Your task to perform on an android device: Set the phone to "Do not disturb". Image 0: 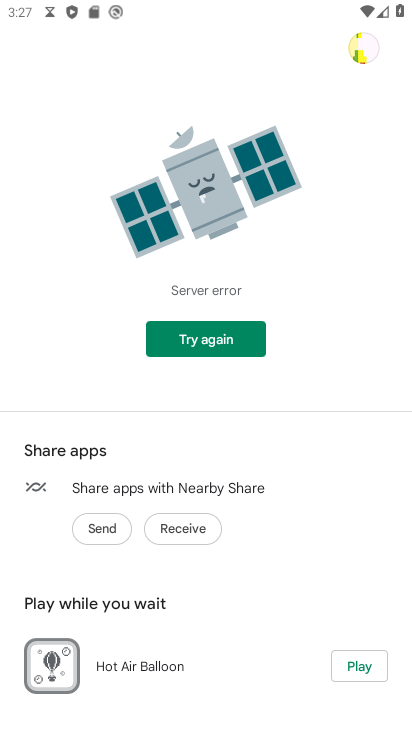
Step 0: press home button
Your task to perform on an android device: Set the phone to "Do not disturb". Image 1: 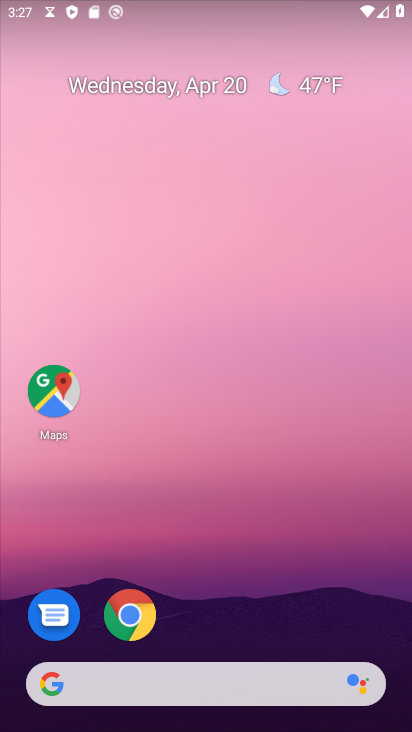
Step 1: drag from (223, 540) to (222, 162)
Your task to perform on an android device: Set the phone to "Do not disturb". Image 2: 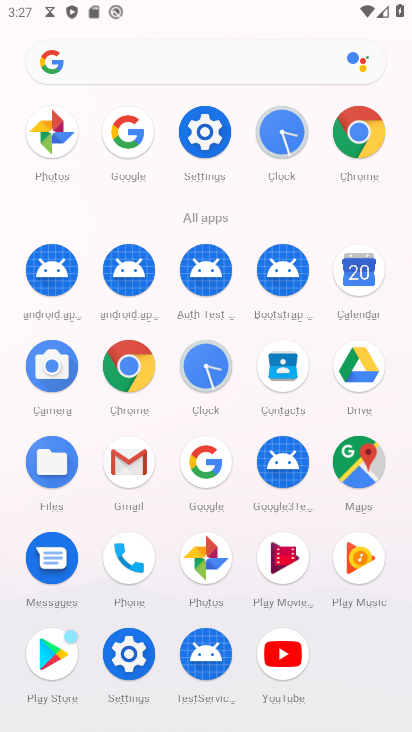
Step 2: click (212, 136)
Your task to perform on an android device: Set the phone to "Do not disturb". Image 3: 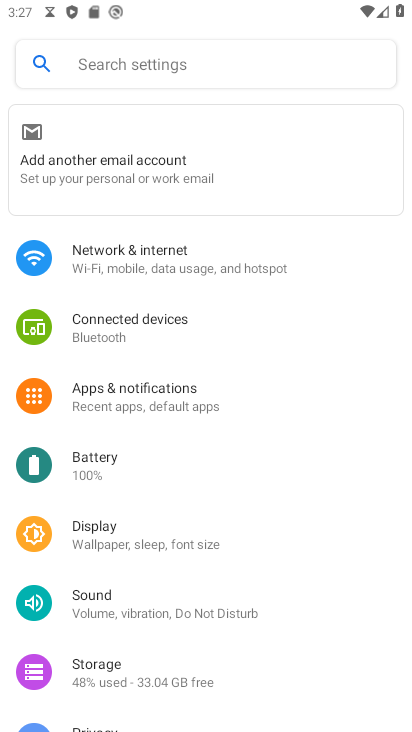
Step 3: click (168, 615)
Your task to perform on an android device: Set the phone to "Do not disturb". Image 4: 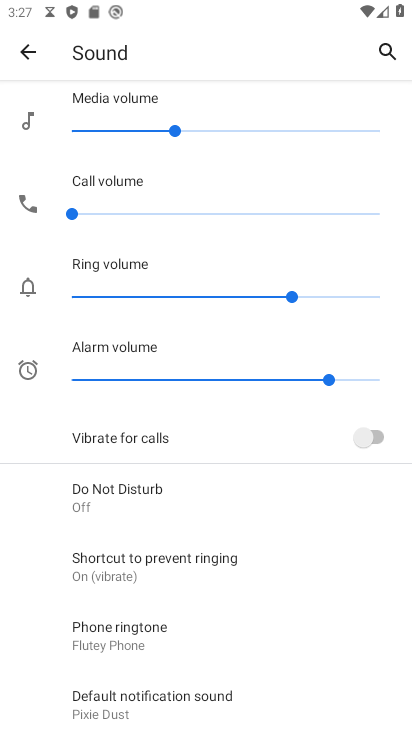
Step 4: click (143, 501)
Your task to perform on an android device: Set the phone to "Do not disturb". Image 5: 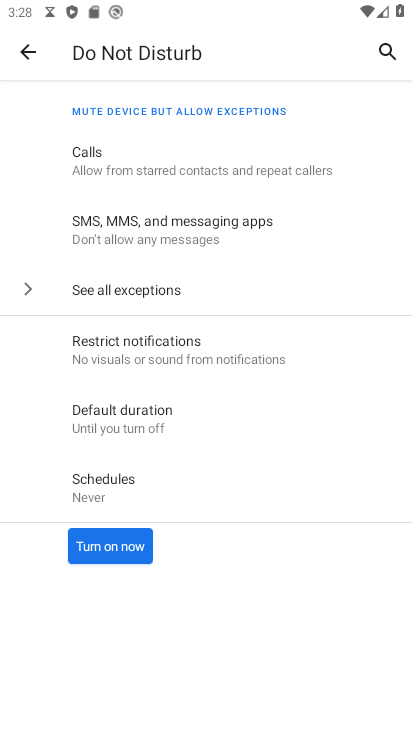
Step 5: click (98, 544)
Your task to perform on an android device: Set the phone to "Do not disturb". Image 6: 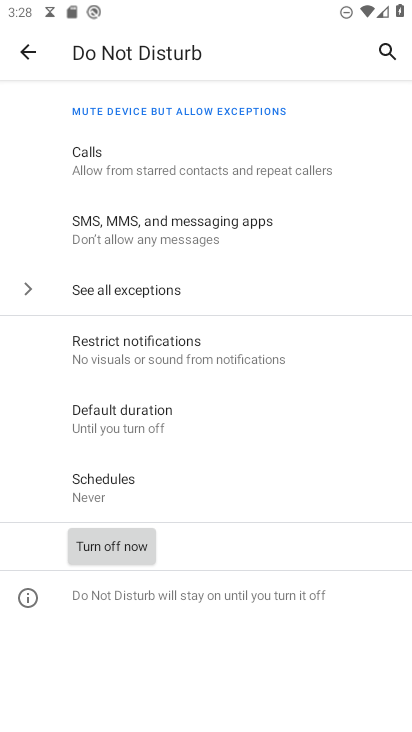
Step 6: task complete